Your task to perform on an android device: Open privacy settings Image 0: 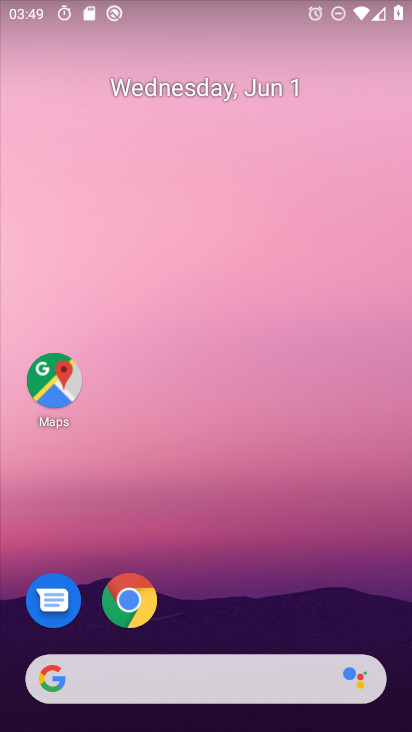
Step 0: drag from (195, 620) to (196, 101)
Your task to perform on an android device: Open privacy settings Image 1: 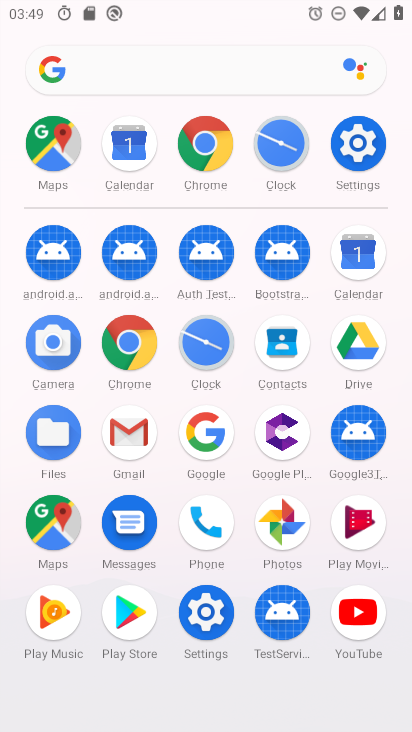
Step 1: click (362, 149)
Your task to perform on an android device: Open privacy settings Image 2: 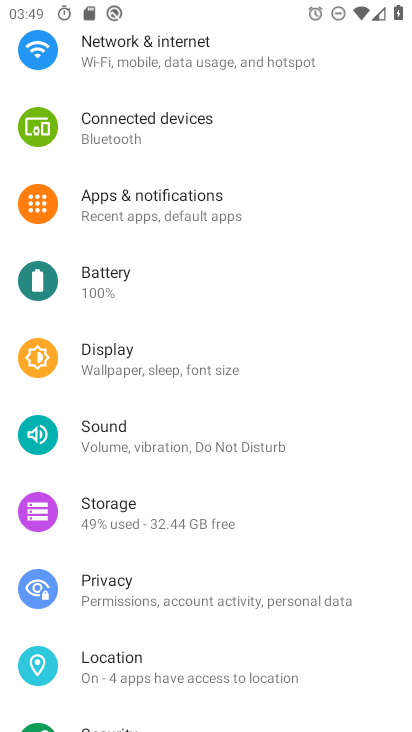
Step 2: drag from (265, 171) to (203, 429)
Your task to perform on an android device: Open privacy settings Image 3: 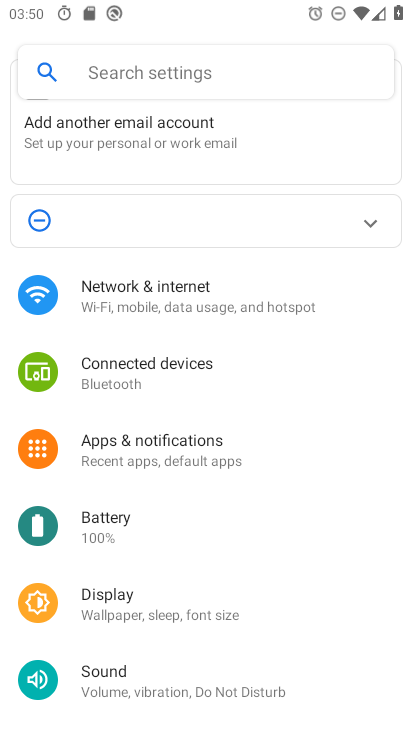
Step 3: drag from (189, 648) to (202, 252)
Your task to perform on an android device: Open privacy settings Image 4: 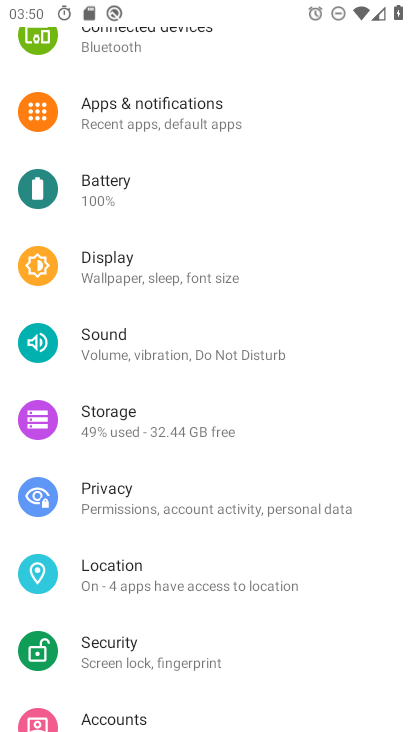
Step 4: click (101, 502)
Your task to perform on an android device: Open privacy settings Image 5: 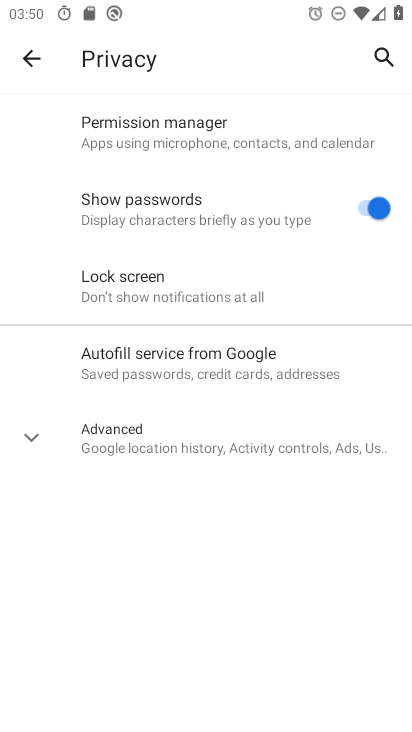
Step 5: task complete